Your task to perform on an android device: Open internet settings Image 0: 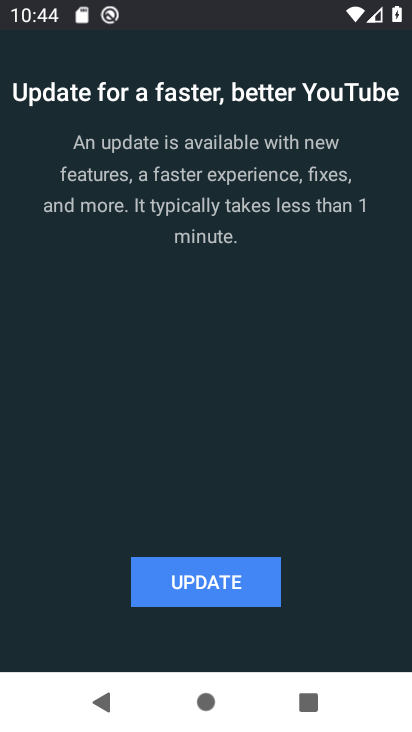
Step 0: press back button
Your task to perform on an android device: Open internet settings Image 1: 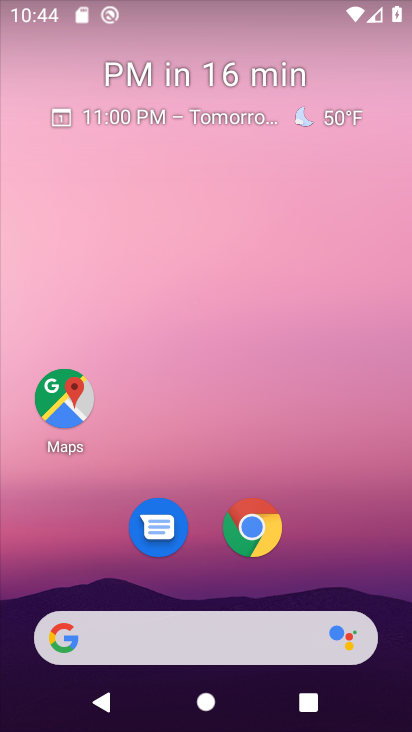
Step 1: drag from (355, 551) to (315, 229)
Your task to perform on an android device: Open internet settings Image 2: 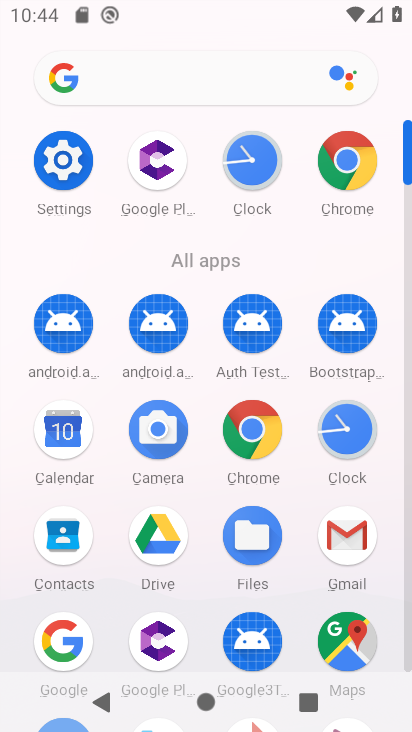
Step 2: click (47, 170)
Your task to perform on an android device: Open internet settings Image 3: 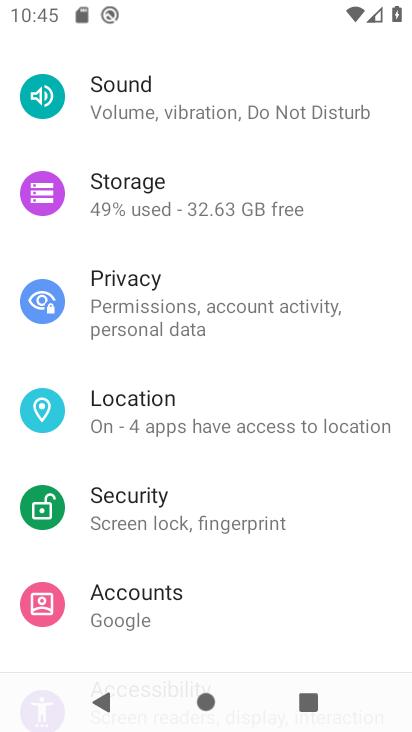
Step 3: drag from (240, 562) to (195, 405)
Your task to perform on an android device: Open internet settings Image 4: 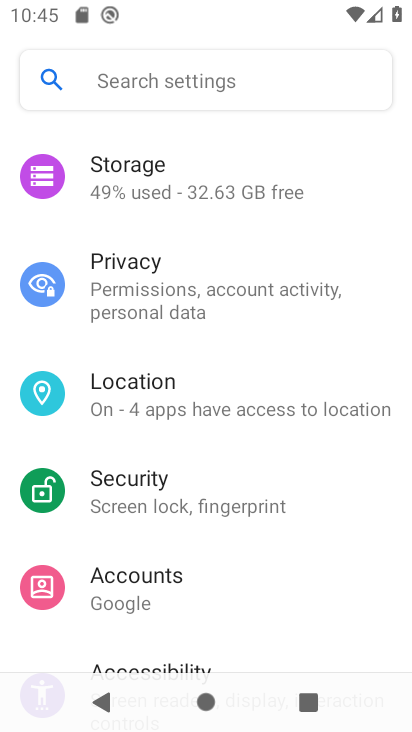
Step 4: drag from (136, 190) to (252, 494)
Your task to perform on an android device: Open internet settings Image 5: 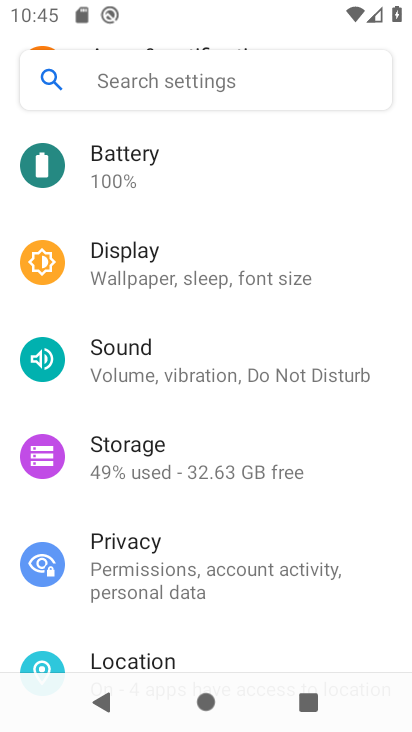
Step 5: drag from (200, 200) to (264, 485)
Your task to perform on an android device: Open internet settings Image 6: 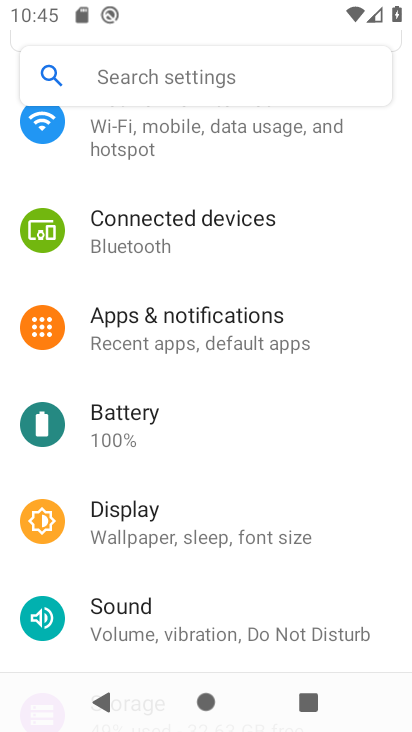
Step 6: click (121, 152)
Your task to perform on an android device: Open internet settings Image 7: 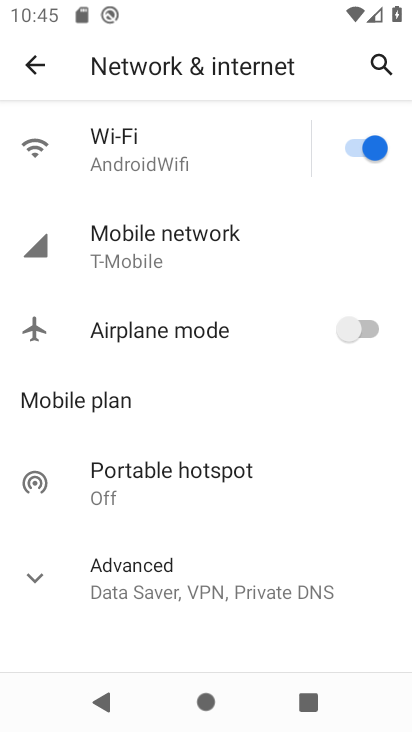
Step 7: task complete